Your task to perform on an android device: show emergency info Image 0: 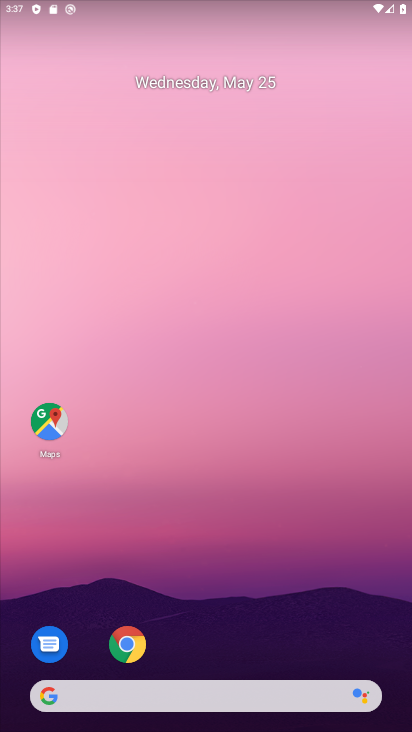
Step 0: drag from (257, 611) to (262, 0)
Your task to perform on an android device: show emergency info Image 1: 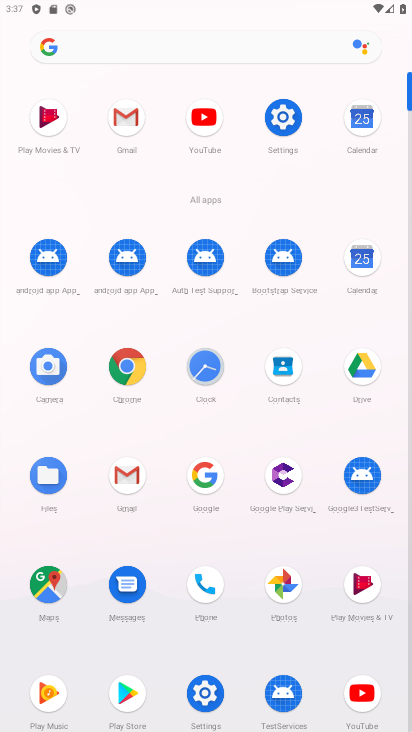
Step 1: click (284, 124)
Your task to perform on an android device: show emergency info Image 2: 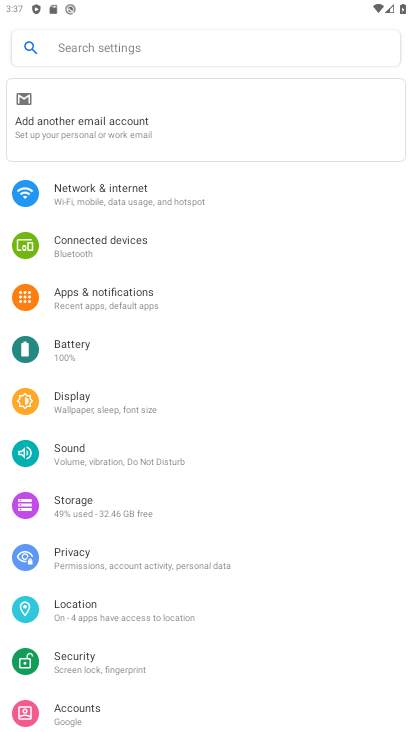
Step 2: drag from (241, 654) to (254, 89)
Your task to perform on an android device: show emergency info Image 3: 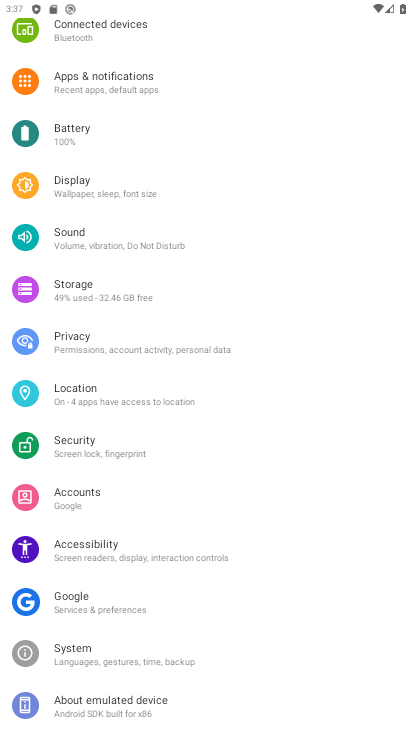
Step 3: click (91, 706)
Your task to perform on an android device: show emergency info Image 4: 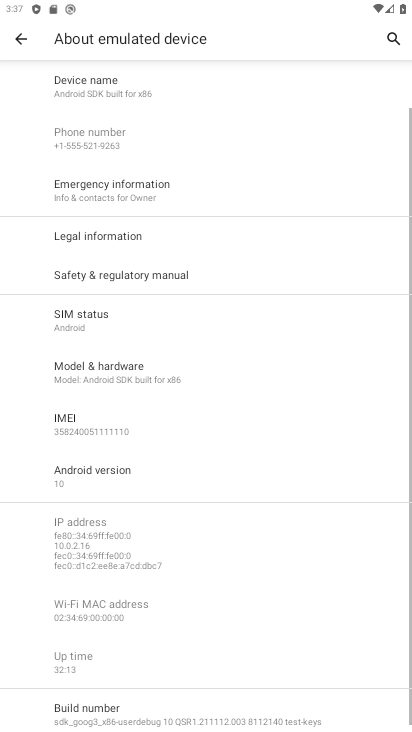
Step 4: click (115, 195)
Your task to perform on an android device: show emergency info Image 5: 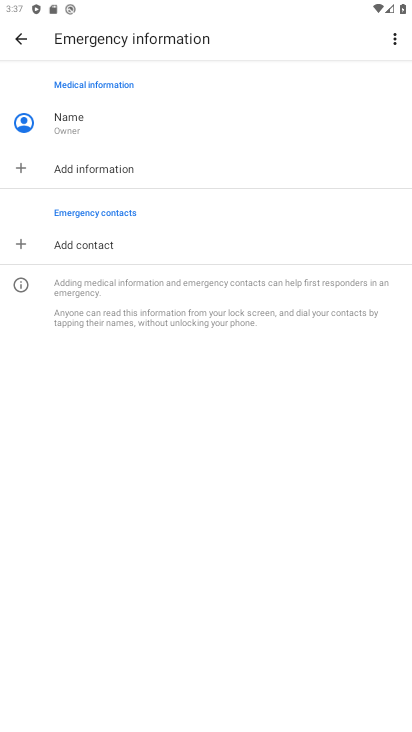
Step 5: task complete